Your task to perform on an android device: uninstall "DoorDash - Food Delivery" Image 0: 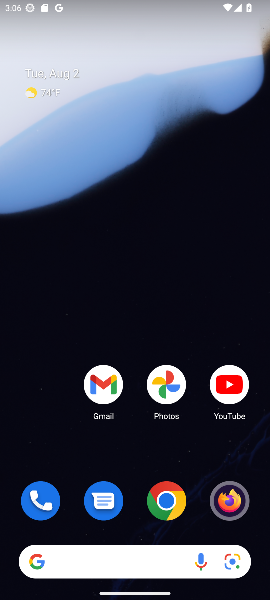
Step 0: drag from (130, 422) to (129, 122)
Your task to perform on an android device: uninstall "DoorDash - Food Delivery" Image 1: 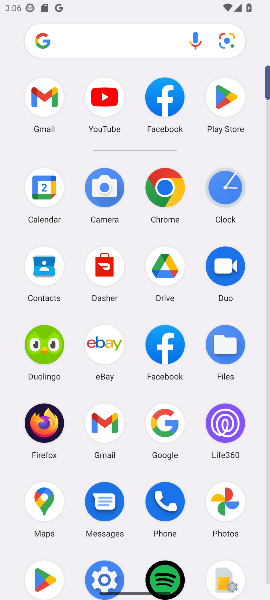
Step 1: click (219, 97)
Your task to perform on an android device: uninstall "DoorDash - Food Delivery" Image 2: 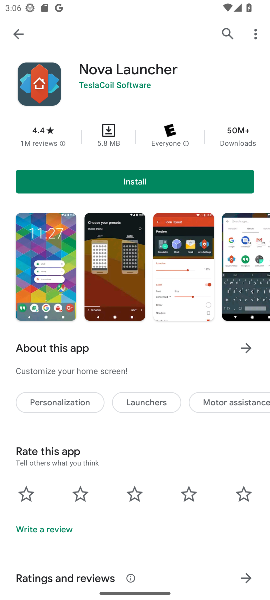
Step 2: click (224, 31)
Your task to perform on an android device: uninstall "DoorDash - Food Delivery" Image 3: 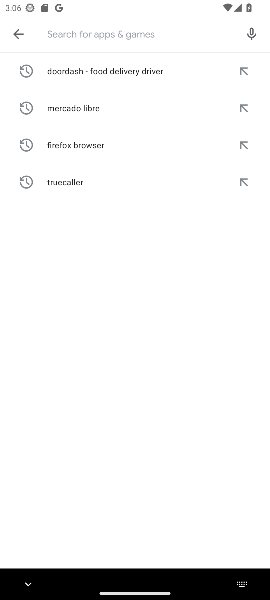
Step 3: click (130, 37)
Your task to perform on an android device: uninstall "DoorDash - Food Delivery" Image 4: 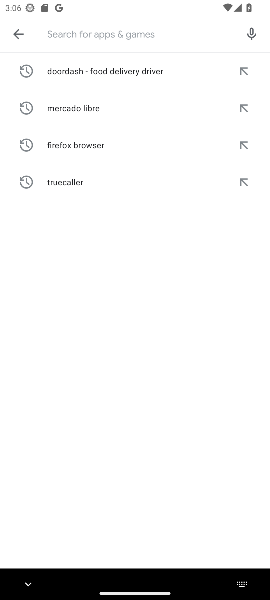
Step 4: type "DoorDash - Food Delivery"
Your task to perform on an android device: uninstall "DoorDash - Food Delivery" Image 5: 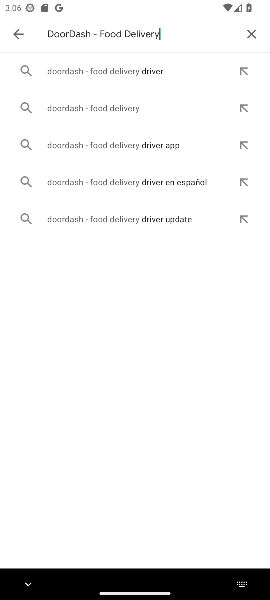
Step 5: click (116, 75)
Your task to perform on an android device: uninstall "DoorDash - Food Delivery" Image 6: 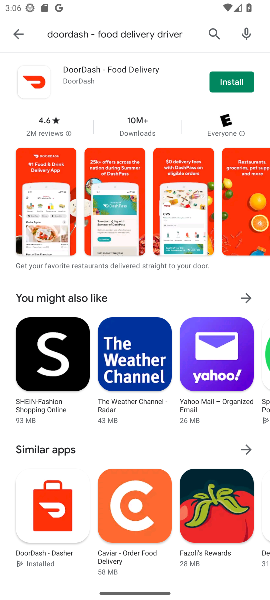
Step 6: task complete